Your task to perform on an android device: turn notification dots off Image 0: 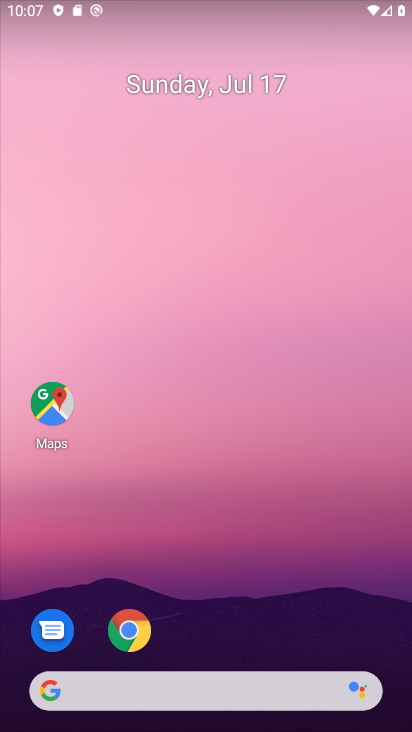
Step 0: drag from (345, 599) to (377, 83)
Your task to perform on an android device: turn notification dots off Image 1: 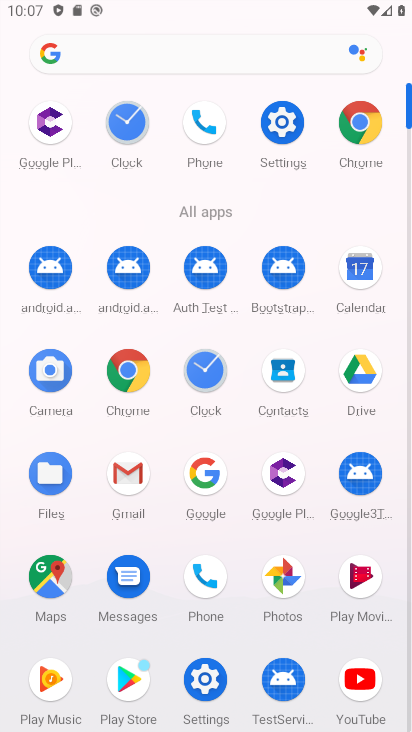
Step 1: click (280, 126)
Your task to perform on an android device: turn notification dots off Image 2: 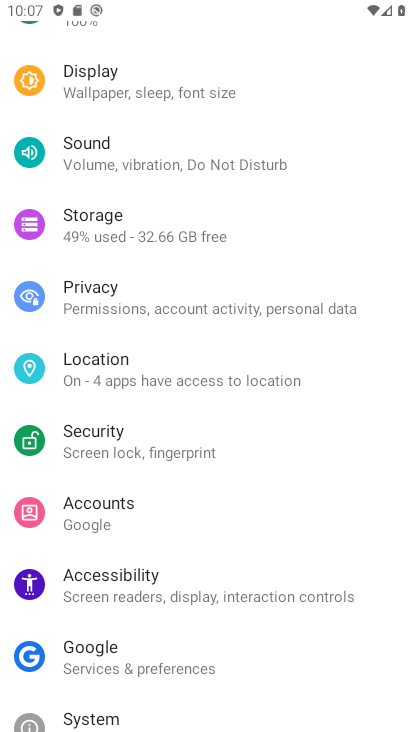
Step 2: drag from (324, 197) to (322, 303)
Your task to perform on an android device: turn notification dots off Image 3: 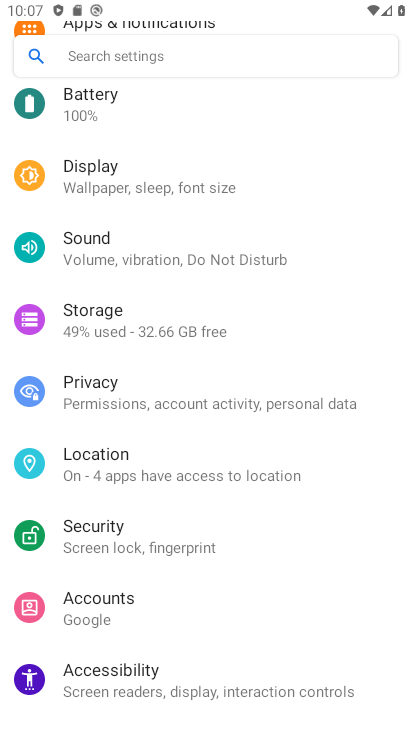
Step 3: drag from (364, 156) to (360, 306)
Your task to perform on an android device: turn notification dots off Image 4: 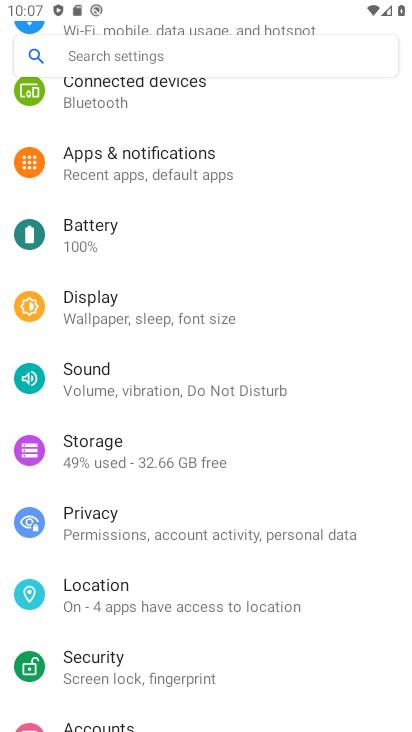
Step 4: drag from (360, 187) to (358, 311)
Your task to perform on an android device: turn notification dots off Image 5: 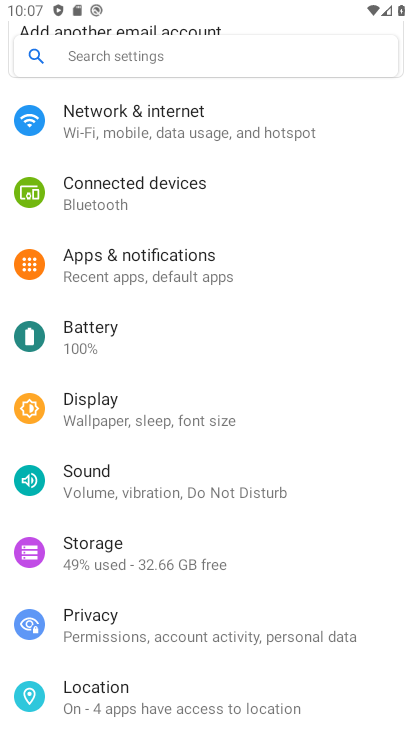
Step 5: drag from (360, 119) to (353, 279)
Your task to perform on an android device: turn notification dots off Image 6: 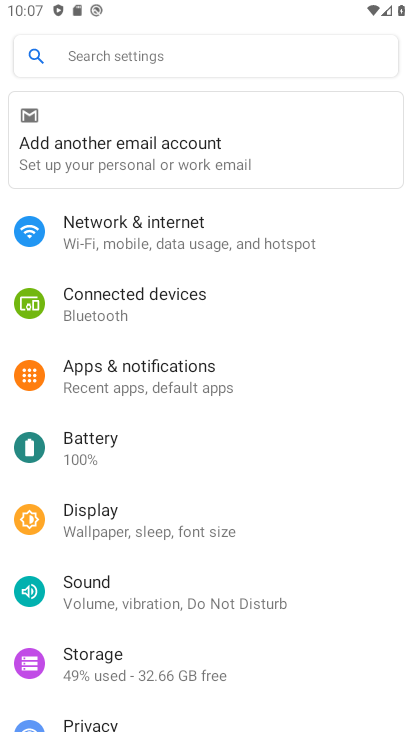
Step 6: drag from (328, 488) to (341, 383)
Your task to perform on an android device: turn notification dots off Image 7: 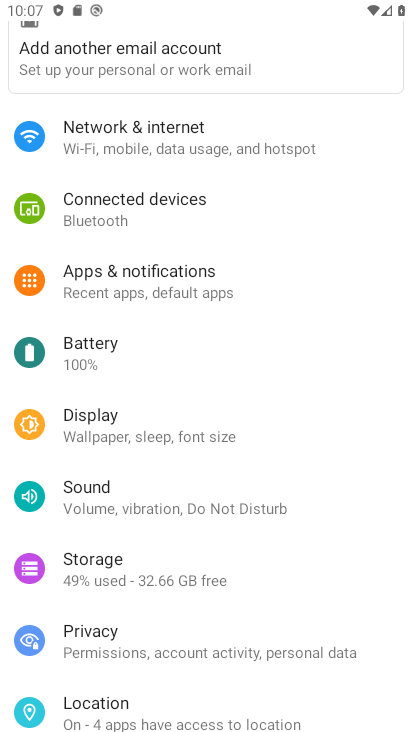
Step 7: drag from (345, 502) to (351, 381)
Your task to perform on an android device: turn notification dots off Image 8: 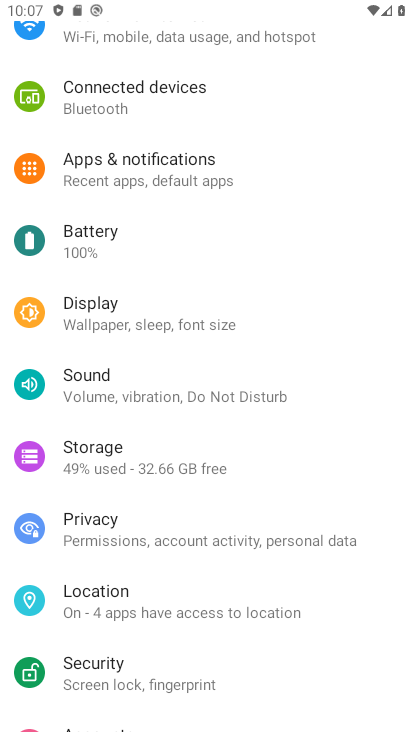
Step 8: drag from (360, 553) to (359, 364)
Your task to perform on an android device: turn notification dots off Image 9: 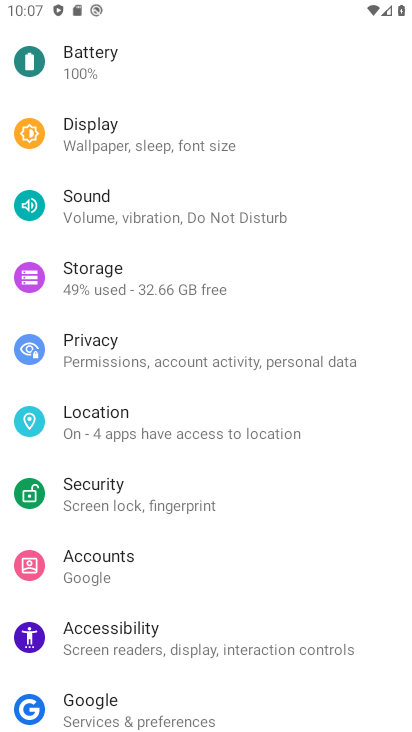
Step 9: drag from (330, 522) to (332, 339)
Your task to perform on an android device: turn notification dots off Image 10: 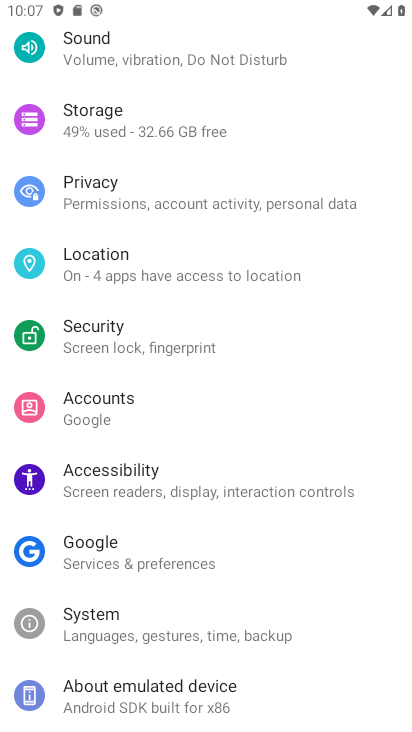
Step 10: drag from (353, 273) to (345, 423)
Your task to perform on an android device: turn notification dots off Image 11: 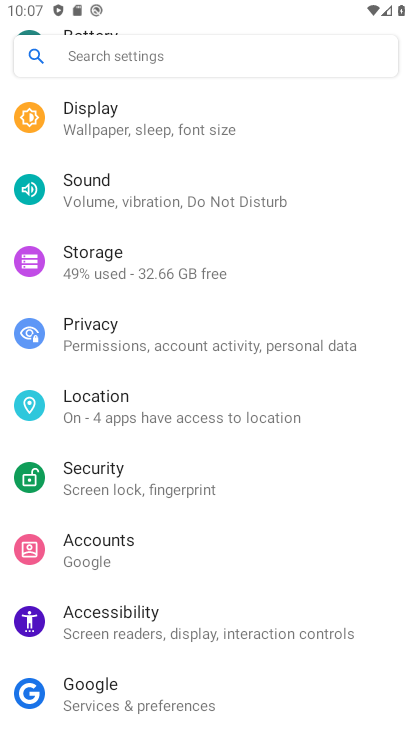
Step 11: drag from (358, 233) to (349, 364)
Your task to perform on an android device: turn notification dots off Image 12: 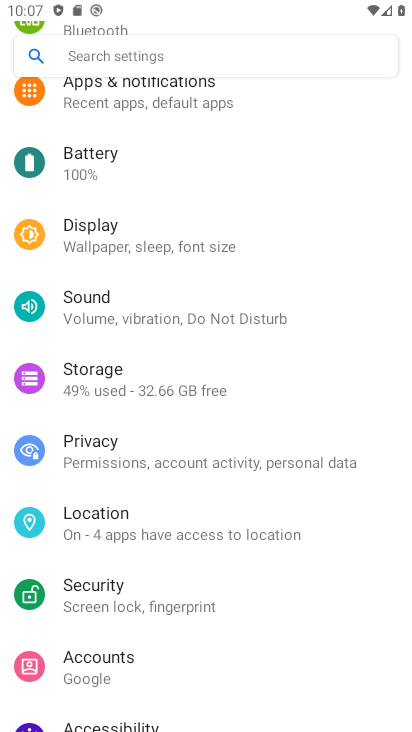
Step 12: drag from (345, 193) to (344, 338)
Your task to perform on an android device: turn notification dots off Image 13: 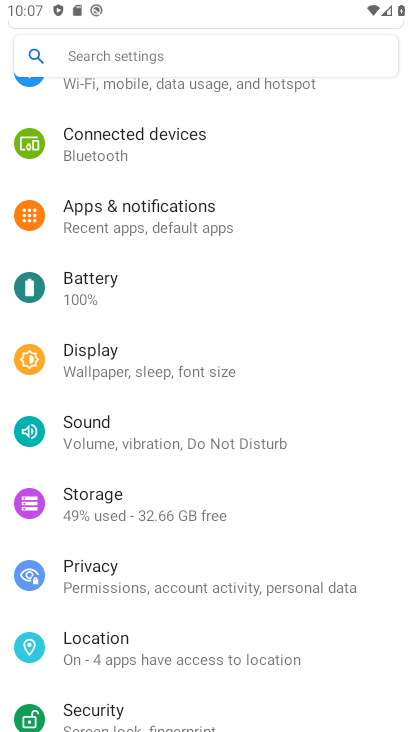
Step 13: drag from (343, 157) to (342, 331)
Your task to perform on an android device: turn notification dots off Image 14: 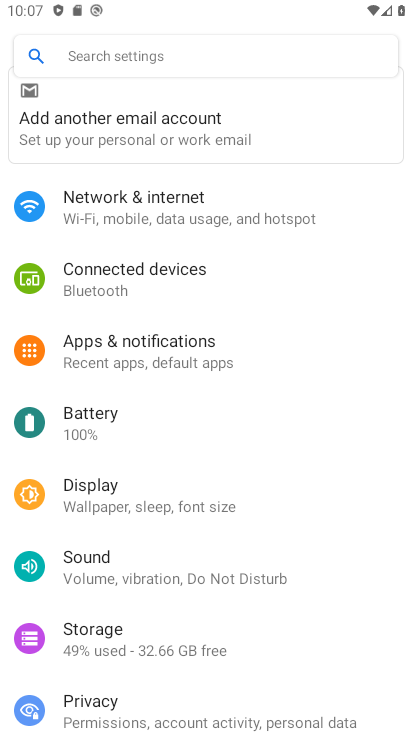
Step 14: drag from (343, 130) to (344, 316)
Your task to perform on an android device: turn notification dots off Image 15: 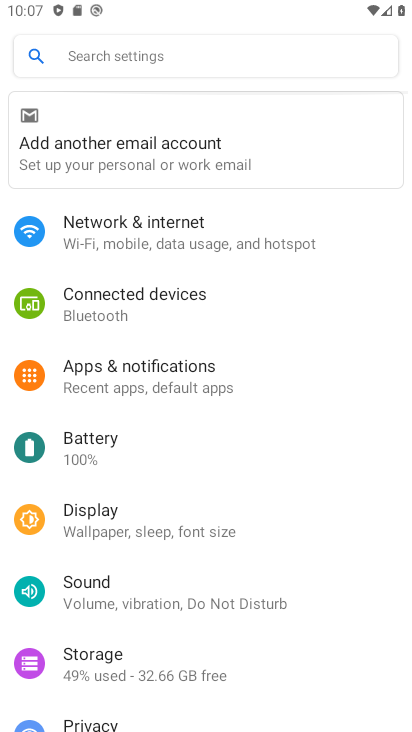
Step 15: click (243, 374)
Your task to perform on an android device: turn notification dots off Image 16: 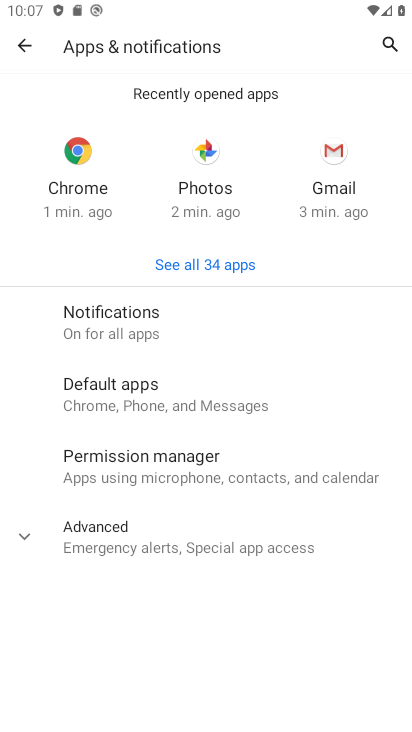
Step 16: click (129, 340)
Your task to perform on an android device: turn notification dots off Image 17: 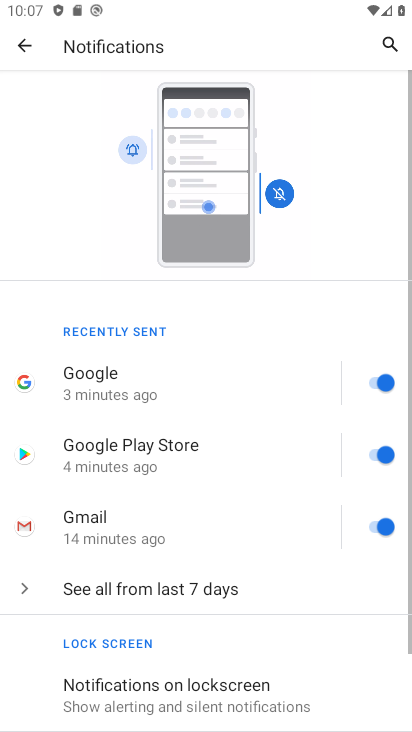
Step 17: drag from (289, 480) to (296, 361)
Your task to perform on an android device: turn notification dots off Image 18: 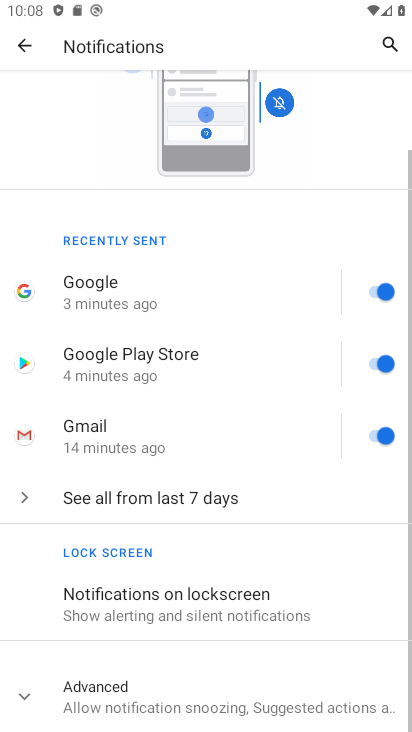
Step 18: drag from (306, 547) to (311, 396)
Your task to perform on an android device: turn notification dots off Image 19: 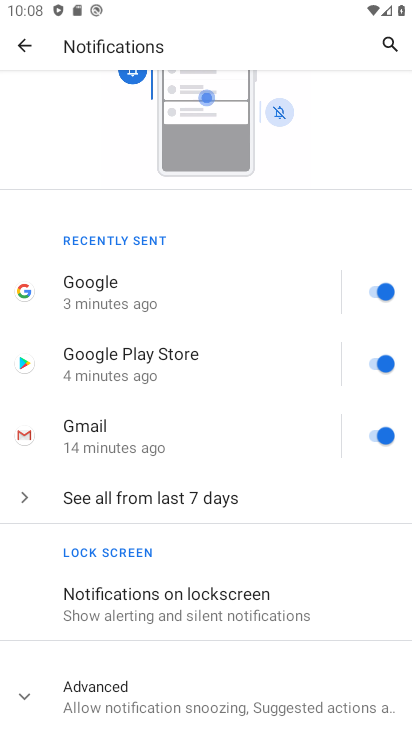
Step 19: click (288, 694)
Your task to perform on an android device: turn notification dots off Image 20: 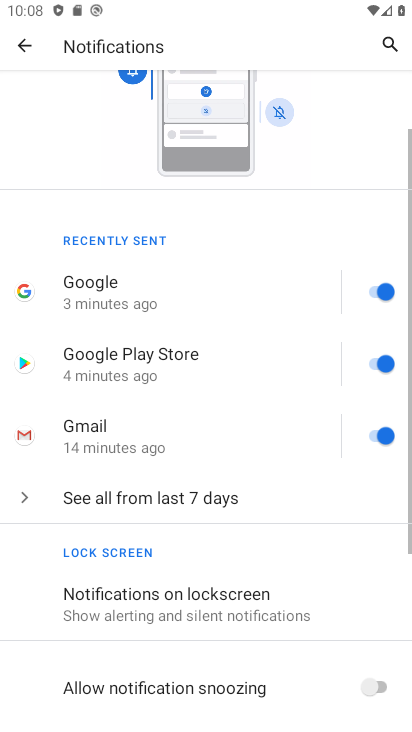
Step 20: drag from (317, 610) to (313, 465)
Your task to perform on an android device: turn notification dots off Image 21: 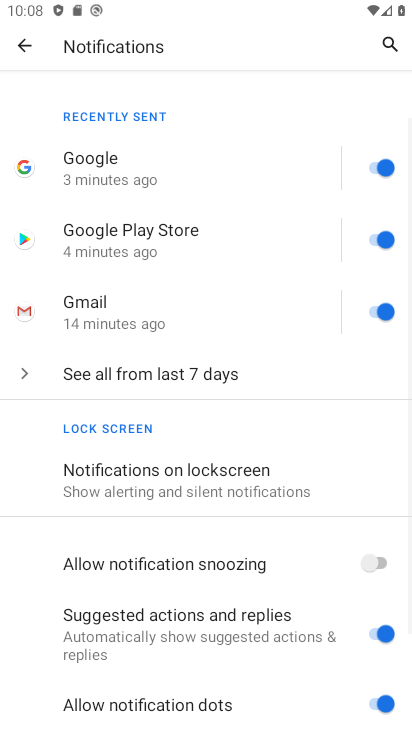
Step 21: drag from (315, 568) to (318, 412)
Your task to perform on an android device: turn notification dots off Image 22: 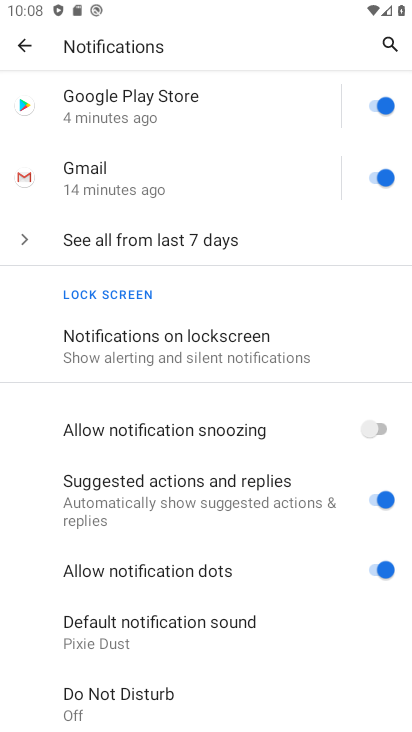
Step 22: click (380, 580)
Your task to perform on an android device: turn notification dots off Image 23: 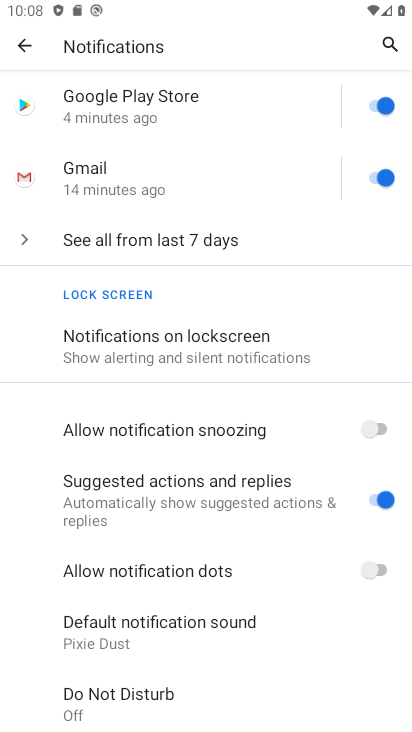
Step 23: task complete